Your task to perform on an android device: Open calendar and show me the first week of next month Image 0: 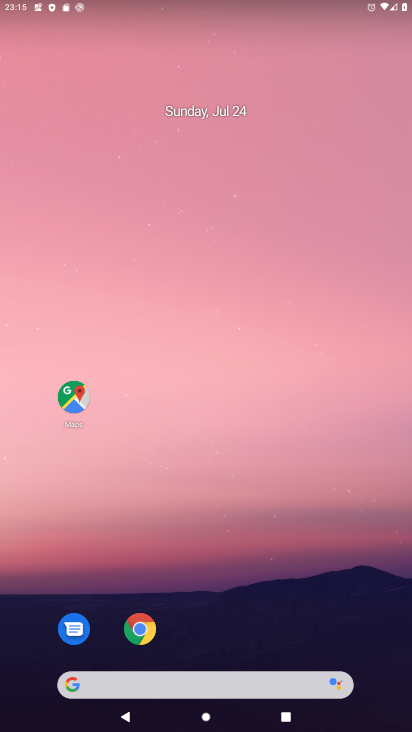
Step 0: drag from (212, 650) to (243, 64)
Your task to perform on an android device: Open calendar and show me the first week of next month Image 1: 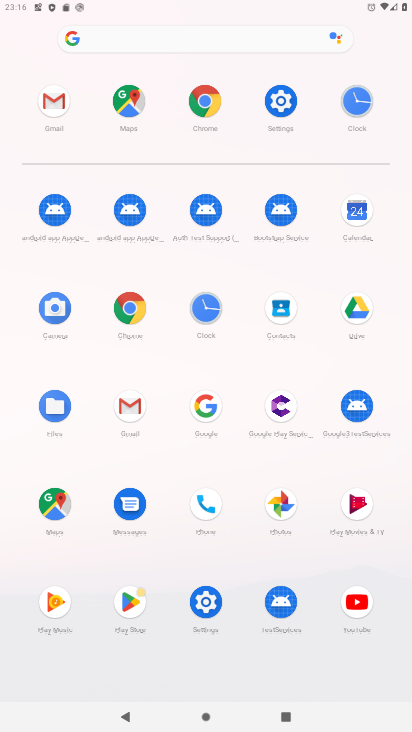
Step 1: click (347, 210)
Your task to perform on an android device: Open calendar and show me the first week of next month Image 2: 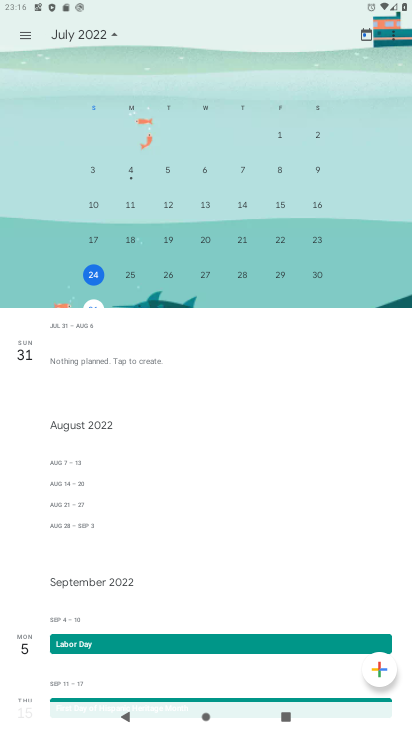
Step 2: drag from (300, 211) to (0, 177)
Your task to perform on an android device: Open calendar and show me the first week of next month Image 3: 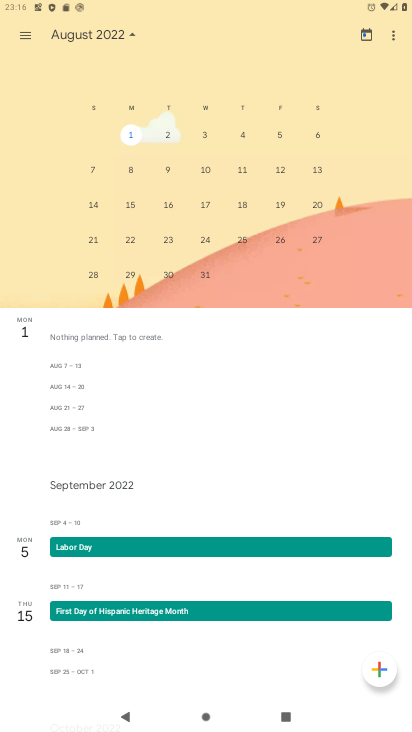
Step 3: click (236, 137)
Your task to perform on an android device: Open calendar and show me the first week of next month Image 4: 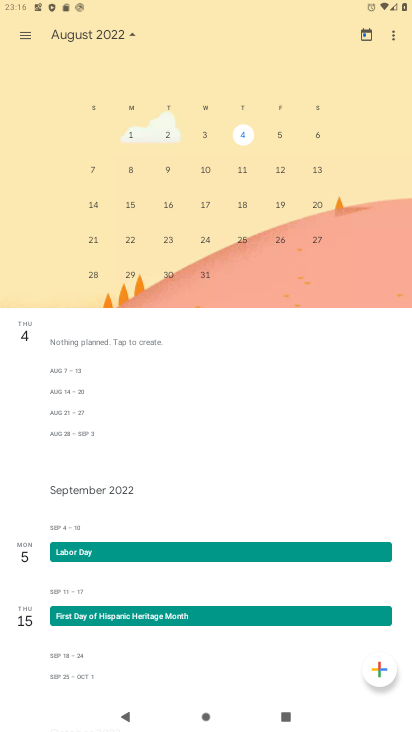
Step 4: task complete